Your task to perform on an android device: What's the weather going to be tomorrow? Image 0: 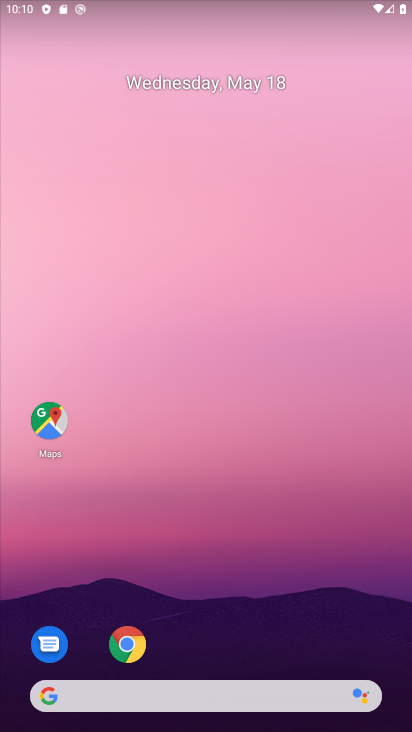
Step 0: drag from (321, 626) to (283, 80)
Your task to perform on an android device: What's the weather going to be tomorrow? Image 1: 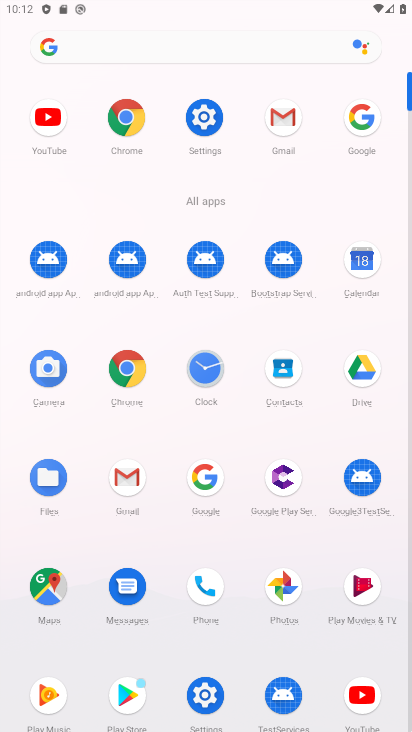
Step 1: click (194, 482)
Your task to perform on an android device: What's the weather going to be tomorrow? Image 2: 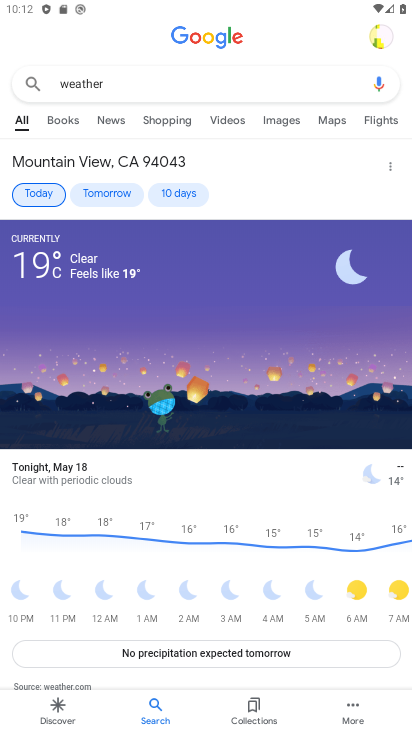
Step 2: press back button
Your task to perform on an android device: What's the weather going to be tomorrow? Image 3: 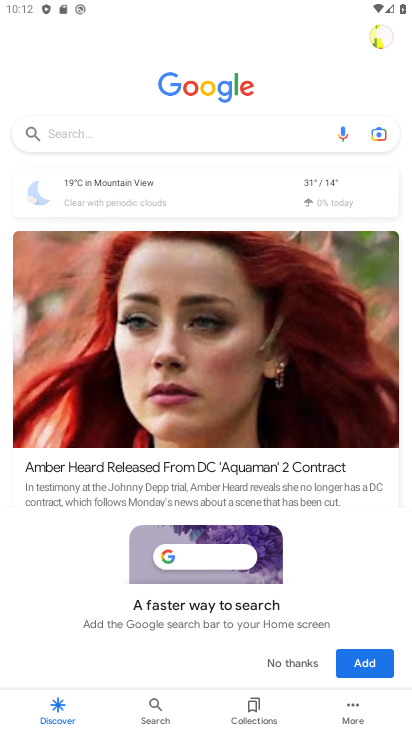
Step 3: click (133, 121)
Your task to perform on an android device: What's the weather going to be tomorrow? Image 4: 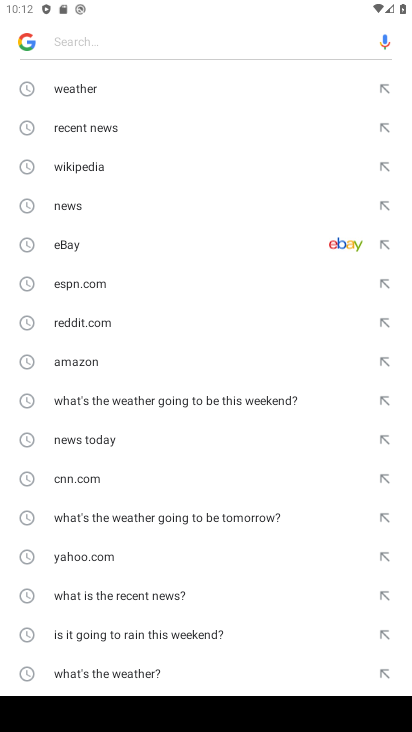
Step 4: click (228, 515)
Your task to perform on an android device: What's the weather going to be tomorrow? Image 5: 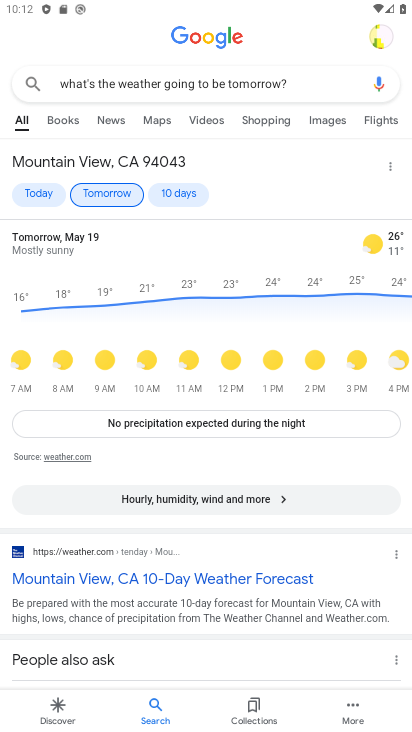
Step 5: task complete